Your task to perform on an android device: Play the last video I watched on Youtube Image 0: 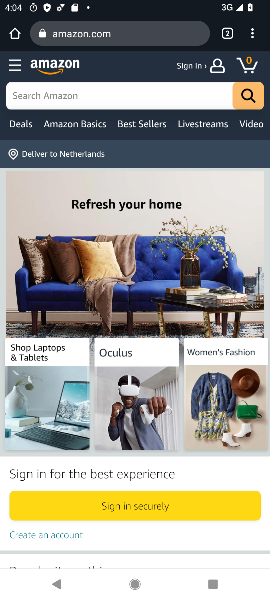
Step 0: press home button
Your task to perform on an android device: Play the last video I watched on Youtube Image 1: 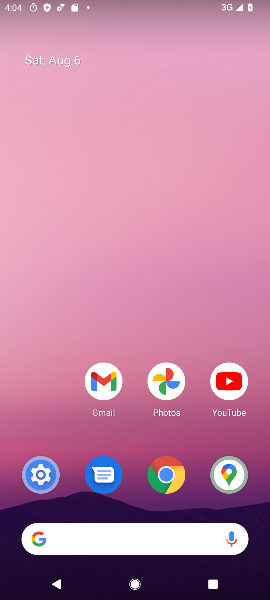
Step 1: click (230, 380)
Your task to perform on an android device: Play the last video I watched on Youtube Image 2: 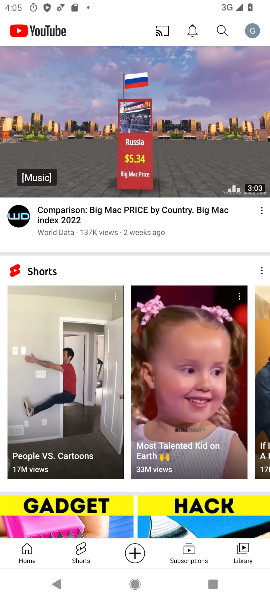
Step 2: click (256, 30)
Your task to perform on an android device: Play the last video I watched on Youtube Image 3: 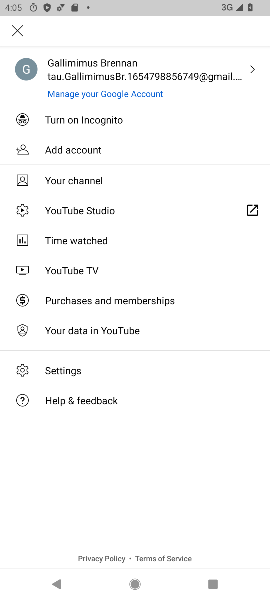
Step 3: click (21, 31)
Your task to perform on an android device: Play the last video I watched on Youtube Image 4: 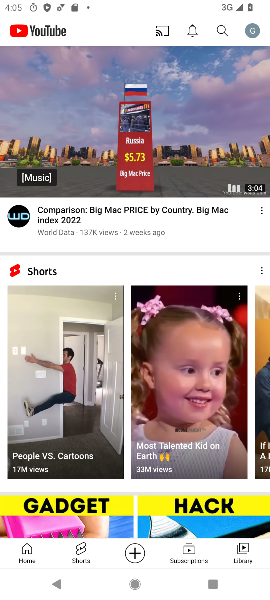
Step 4: click (238, 551)
Your task to perform on an android device: Play the last video I watched on Youtube Image 5: 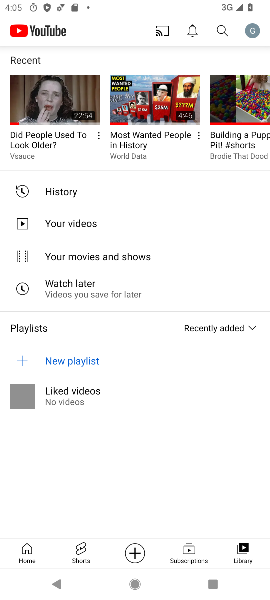
Step 5: click (45, 104)
Your task to perform on an android device: Play the last video I watched on Youtube Image 6: 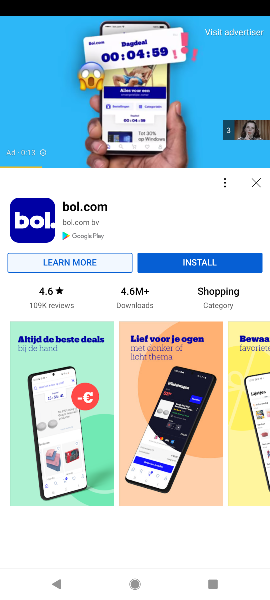
Step 6: click (136, 104)
Your task to perform on an android device: Play the last video I watched on Youtube Image 7: 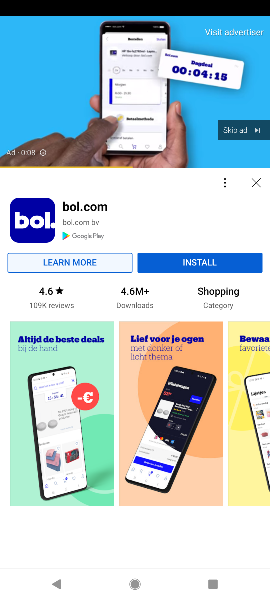
Step 7: click (136, 95)
Your task to perform on an android device: Play the last video I watched on Youtube Image 8: 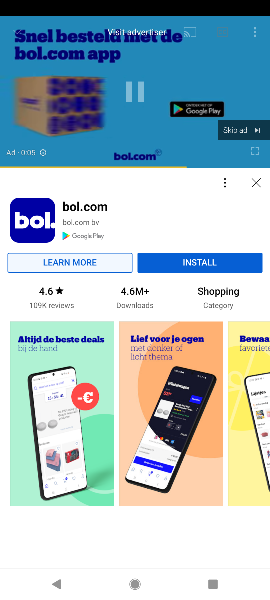
Step 8: task complete